Your task to perform on an android device: Open settings Image 0: 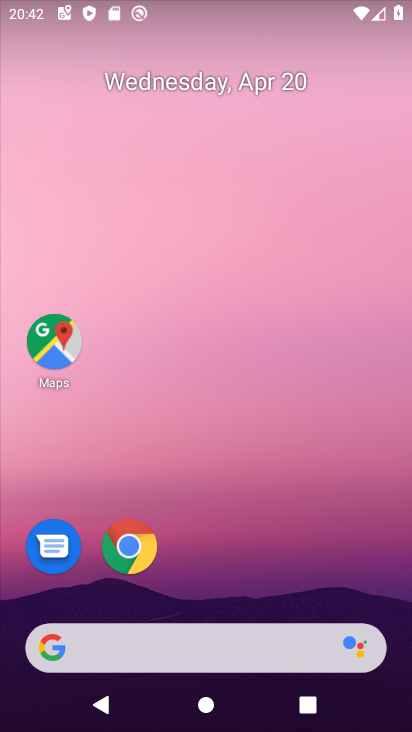
Step 0: drag from (278, 565) to (242, 109)
Your task to perform on an android device: Open settings Image 1: 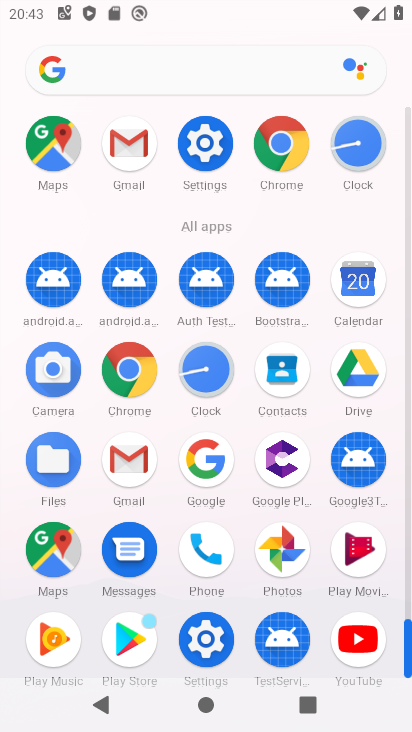
Step 1: click (197, 147)
Your task to perform on an android device: Open settings Image 2: 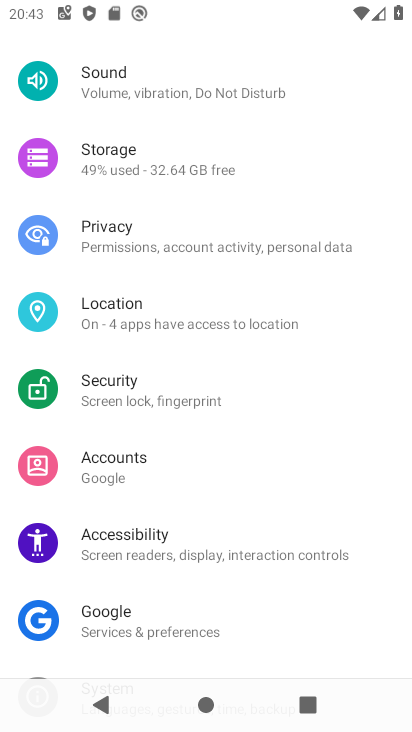
Step 2: task complete